Your task to perform on an android device: Go to wifi settings Image 0: 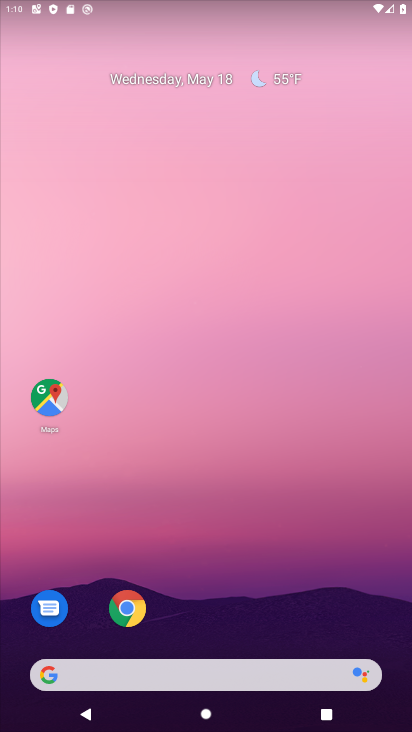
Step 0: drag from (252, 542) to (311, 103)
Your task to perform on an android device: Go to wifi settings Image 1: 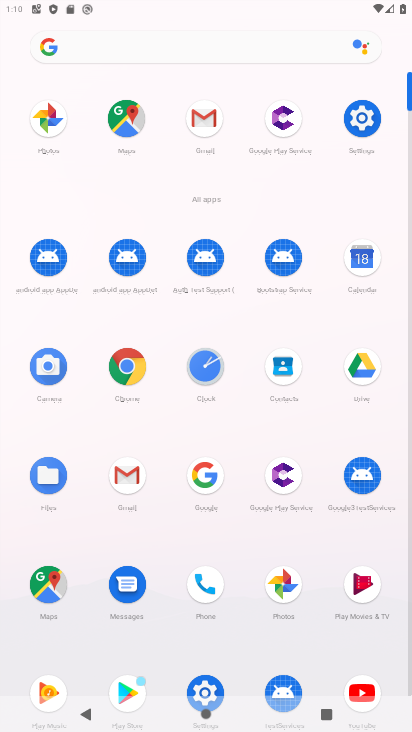
Step 1: click (353, 117)
Your task to perform on an android device: Go to wifi settings Image 2: 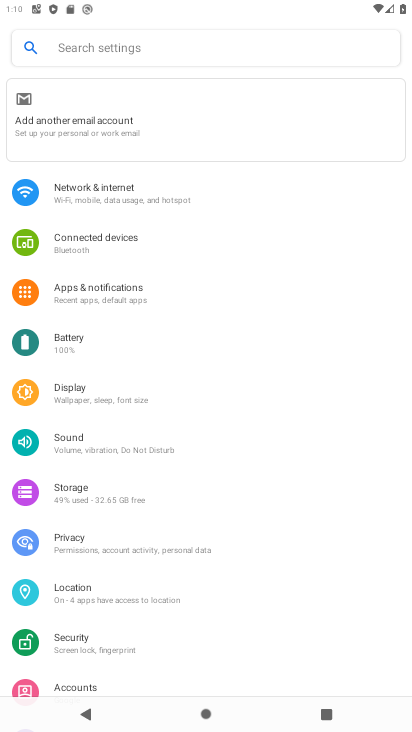
Step 2: click (160, 572)
Your task to perform on an android device: Go to wifi settings Image 3: 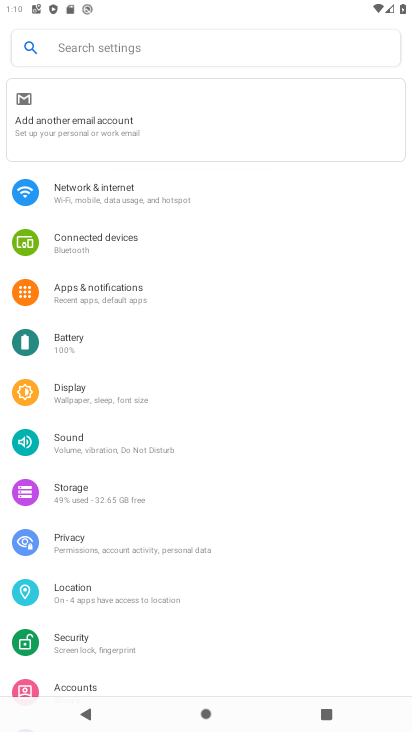
Step 3: click (171, 198)
Your task to perform on an android device: Go to wifi settings Image 4: 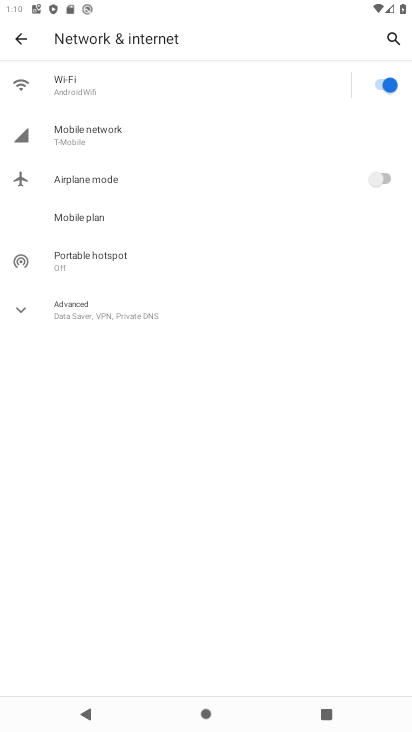
Step 4: click (110, 75)
Your task to perform on an android device: Go to wifi settings Image 5: 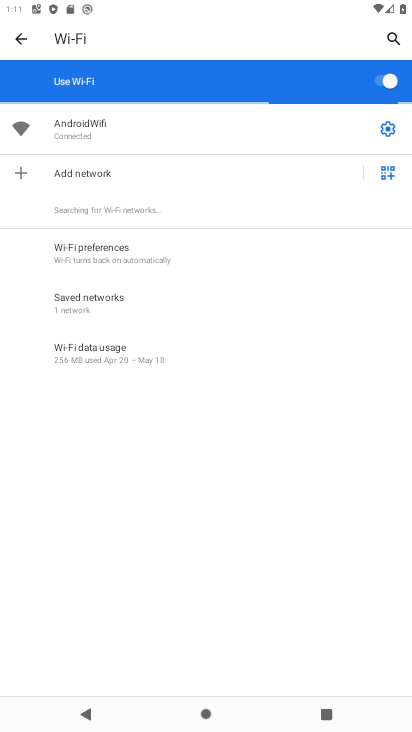
Step 5: click (379, 124)
Your task to perform on an android device: Go to wifi settings Image 6: 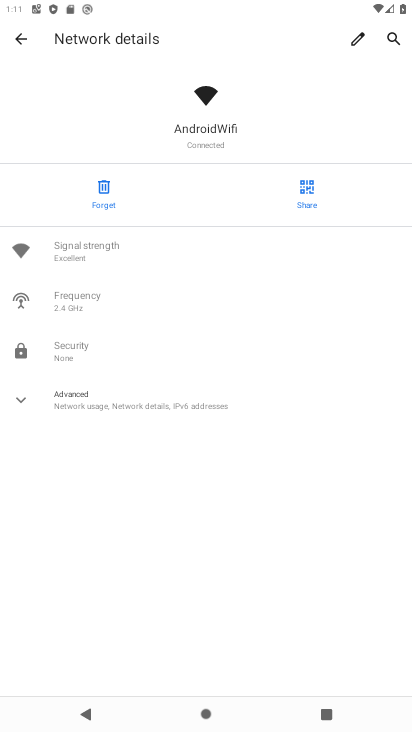
Step 6: task complete